Your task to perform on an android device: add a contact Image 0: 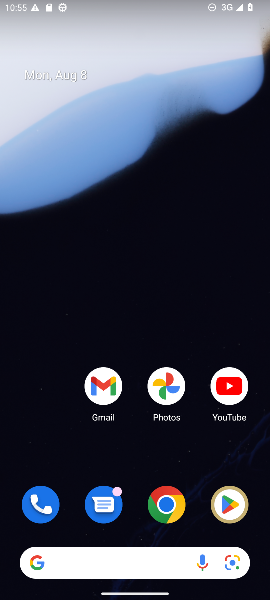
Step 0: drag from (133, 438) to (151, 38)
Your task to perform on an android device: add a contact Image 1: 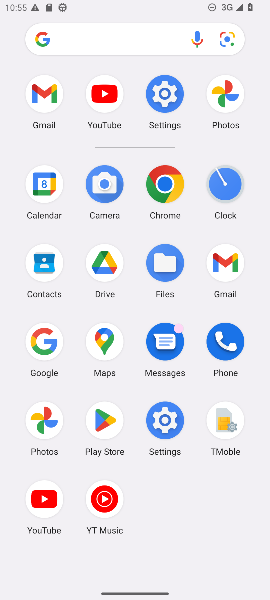
Step 1: click (50, 269)
Your task to perform on an android device: add a contact Image 2: 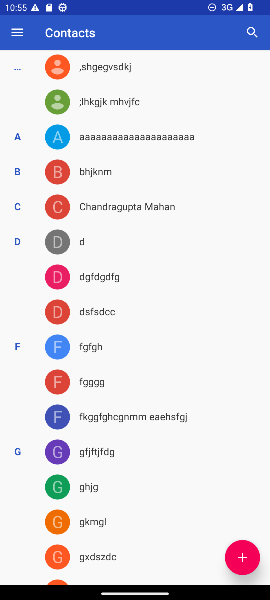
Step 2: click (239, 546)
Your task to perform on an android device: add a contact Image 3: 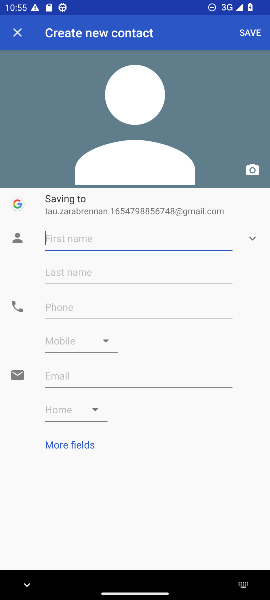
Step 3: type "castle"
Your task to perform on an android device: add a contact Image 4: 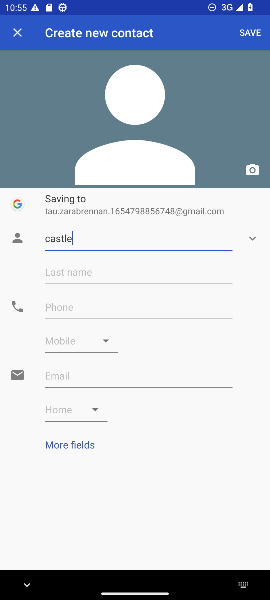
Step 4: click (232, 34)
Your task to perform on an android device: add a contact Image 5: 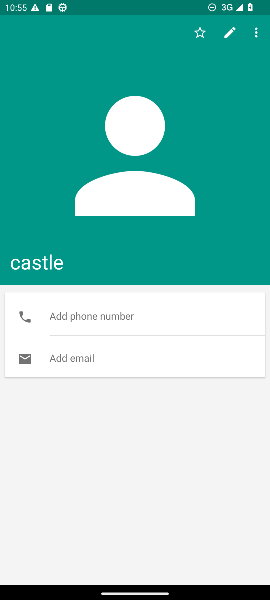
Step 5: task complete